Your task to perform on an android device: turn on the 24-hour format for clock Image 0: 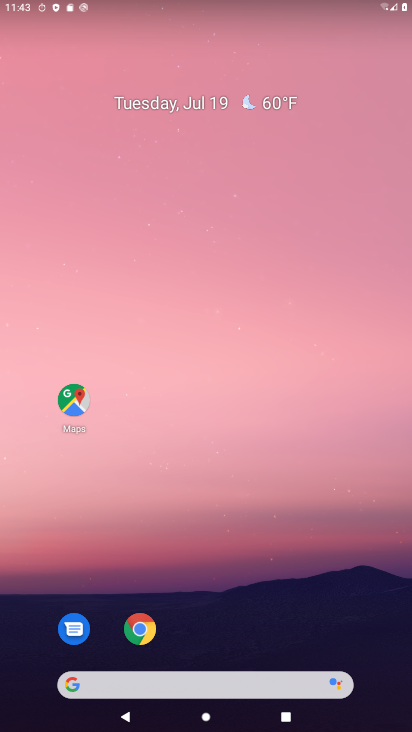
Step 0: drag from (248, 625) to (256, 0)
Your task to perform on an android device: turn on the 24-hour format for clock Image 1: 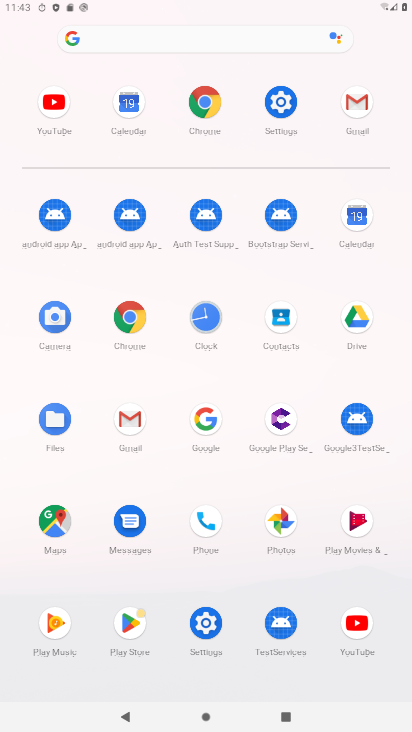
Step 1: click (203, 326)
Your task to perform on an android device: turn on the 24-hour format for clock Image 2: 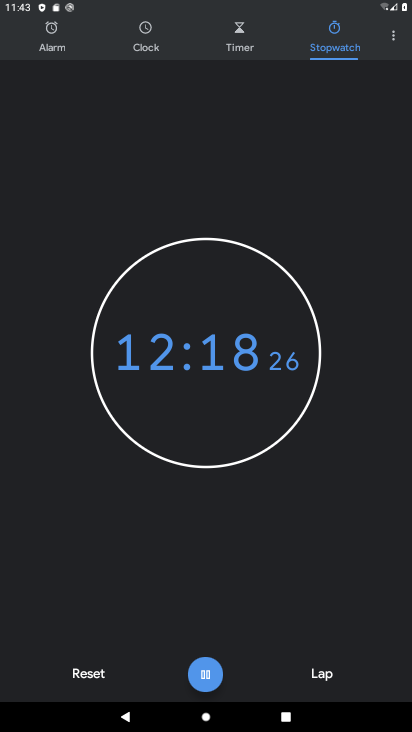
Step 2: click (398, 38)
Your task to perform on an android device: turn on the 24-hour format for clock Image 3: 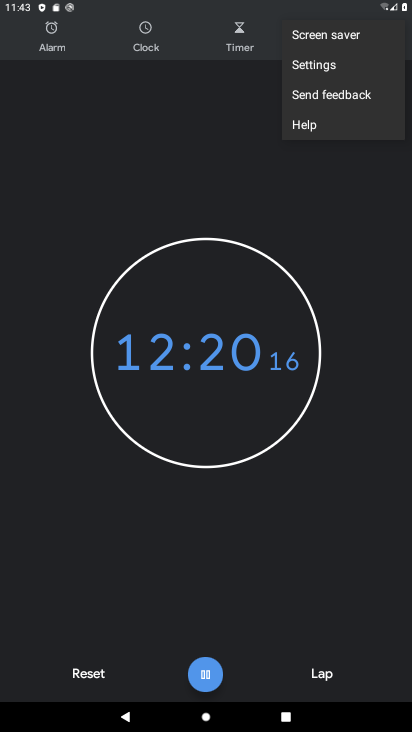
Step 3: click (355, 68)
Your task to perform on an android device: turn on the 24-hour format for clock Image 4: 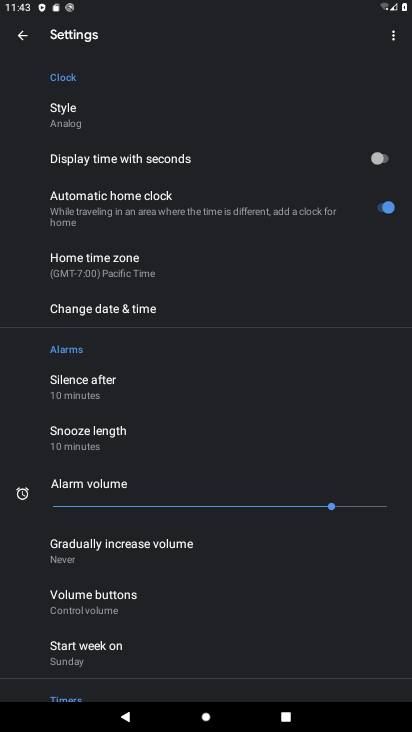
Step 4: click (102, 319)
Your task to perform on an android device: turn on the 24-hour format for clock Image 5: 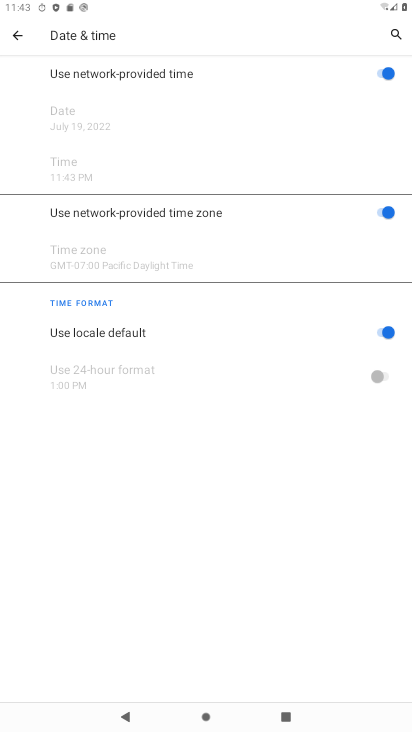
Step 5: click (367, 321)
Your task to perform on an android device: turn on the 24-hour format for clock Image 6: 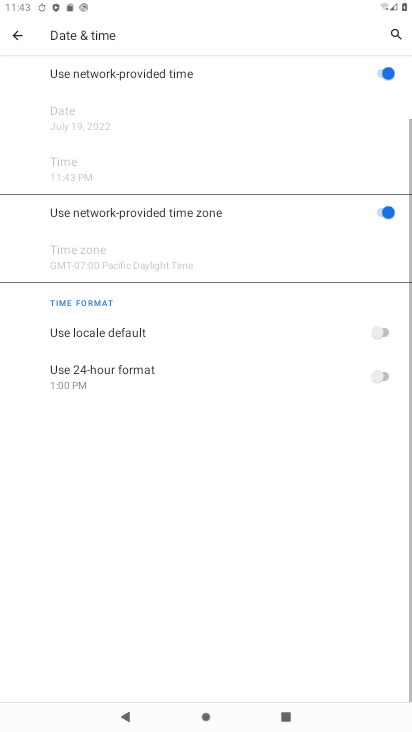
Step 6: click (386, 381)
Your task to perform on an android device: turn on the 24-hour format for clock Image 7: 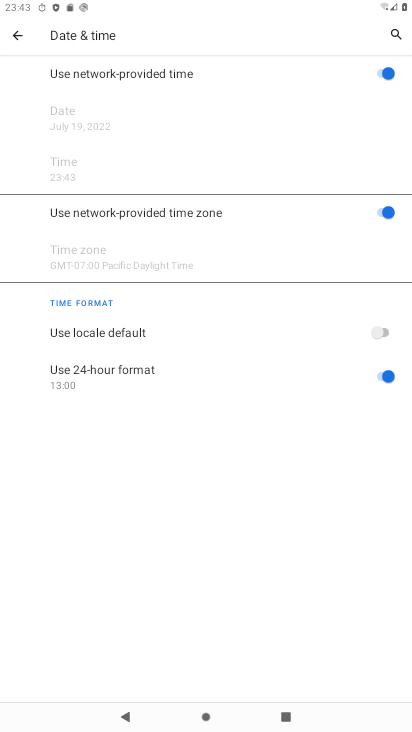
Step 7: task complete